Your task to perform on an android device: turn on priority inbox in the gmail app Image 0: 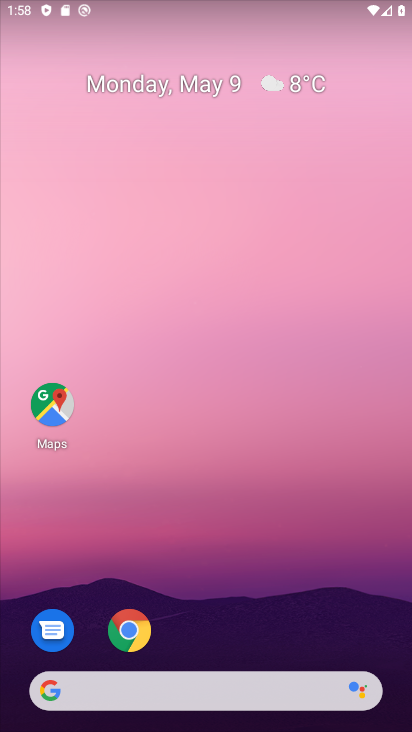
Step 0: drag from (283, 591) to (308, 39)
Your task to perform on an android device: turn on priority inbox in the gmail app Image 1: 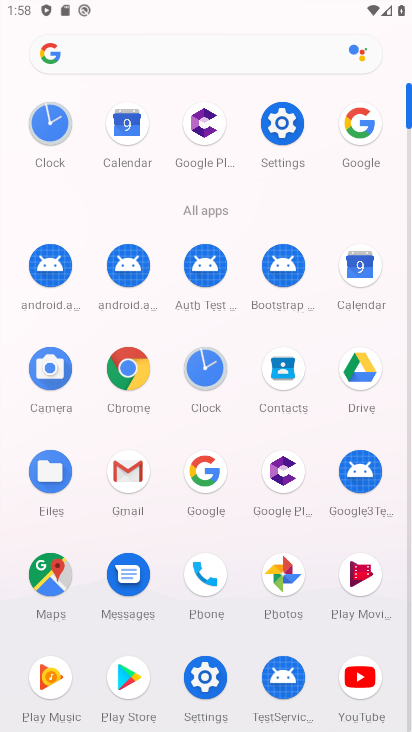
Step 1: click (111, 469)
Your task to perform on an android device: turn on priority inbox in the gmail app Image 2: 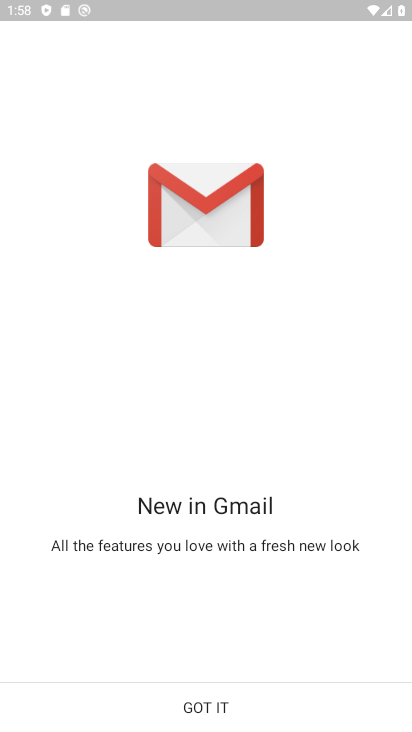
Step 2: click (179, 710)
Your task to perform on an android device: turn on priority inbox in the gmail app Image 3: 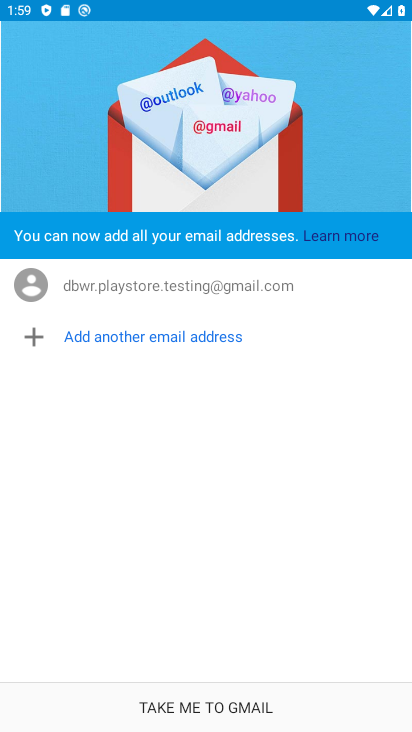
Step 3: press back button
Your task to perform on an android device: turn on priority inbox in the gmail app Image 4: 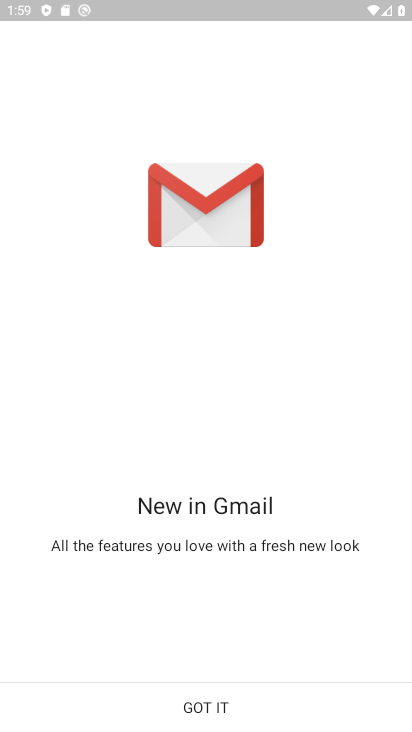
Step 4: click (210, 699)
Your task to perform on an android device: turn on priority inbox in the gmail app Image 5: 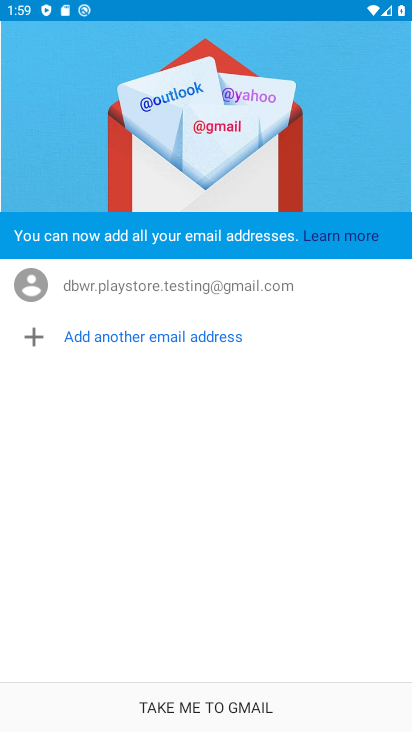
Step 5: click (215, 698)
Your task to perform on an android device: turn on priority inbox in the gmail app Image 6: 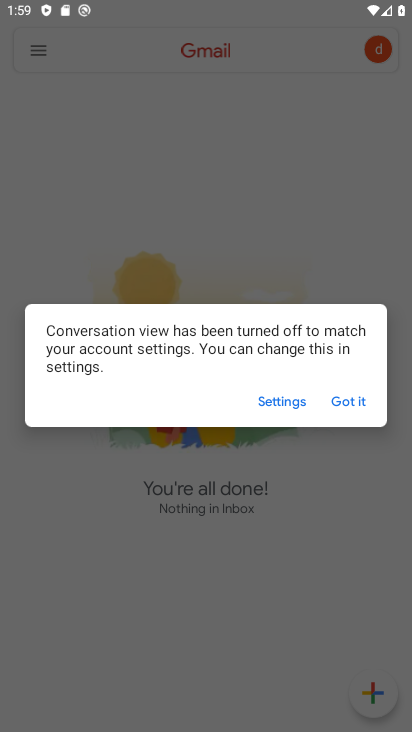
Step 6: click (345, 406)
Your task to perform on an android device: turn on priority inbox in the gmail app Image 7: 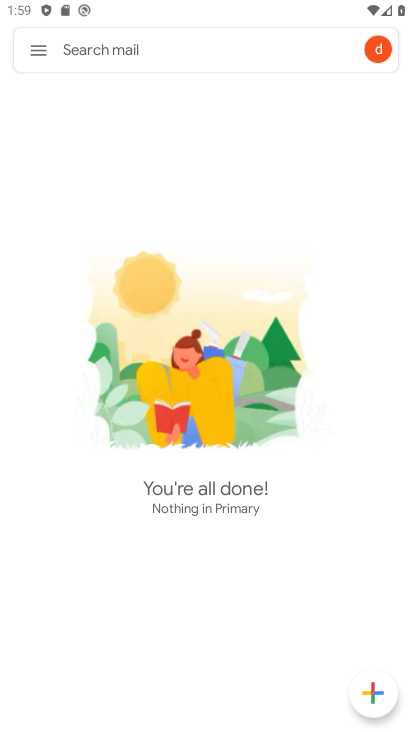
Step 7: click (36, 45)
Your task to perform on an android device: turn on priority inbox in the gmail app Image 8: 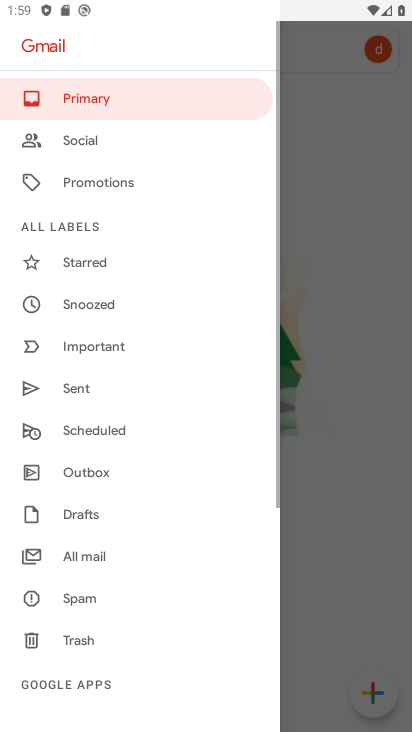
Step 8: drag from (115, 625) to (186, 66)
Your task to perform on an android device: turn on priority inbox in the gmail app Image 9: 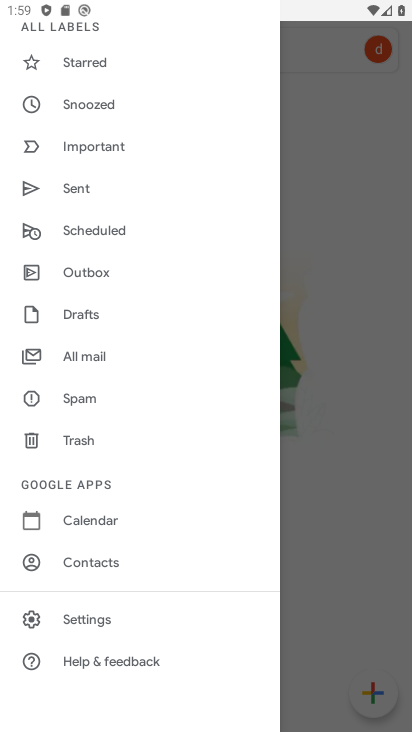
Step 9: click (97, 619)
Your task to perform on an android device: turn on priority inbox in the gmail app Image 10: 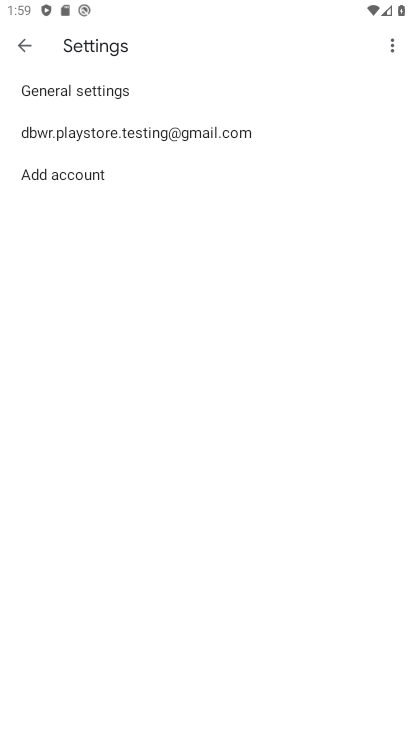
Step 10: click (81, 133)
Your task to perform on an android device: turn on priority inbox in the gmail app Image 11: 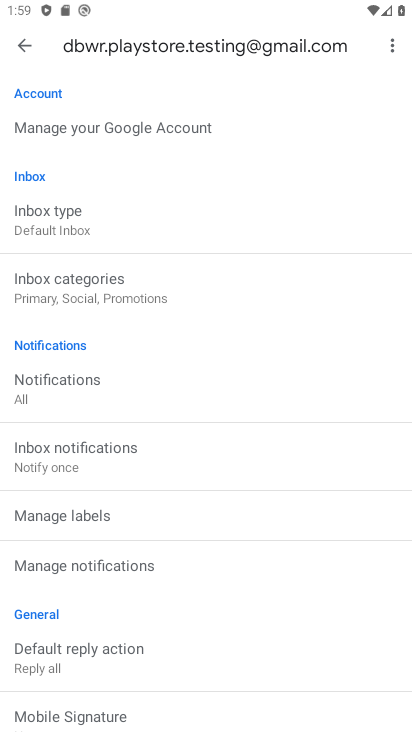
Step 11: click (80, 223)
Your task to perform on an android device: turn on priority inbox in the gmail app Image 12: 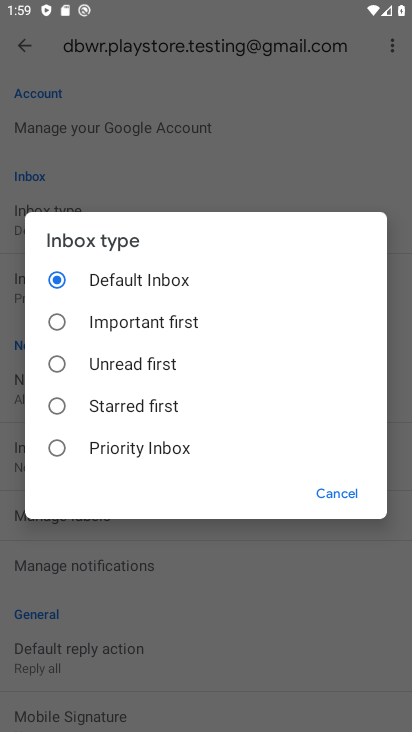
Step 12: click (50, 451)
Your task to perform on an android device: turn on priority inbox in the gmail app Image 13: 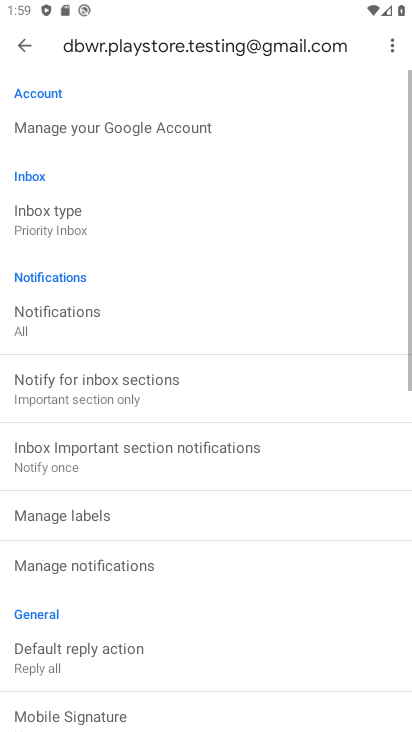
Step 13: task complete